Your task to perform on an android device: Go to accessibility settings Image 0: 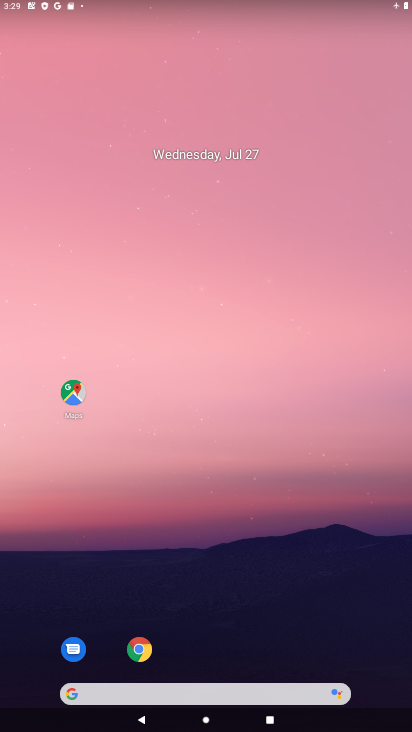
Step 0: drag from (220, 612) to (228, 570)
Your task to perform on an android device: Go to accessibility settings Image 1: 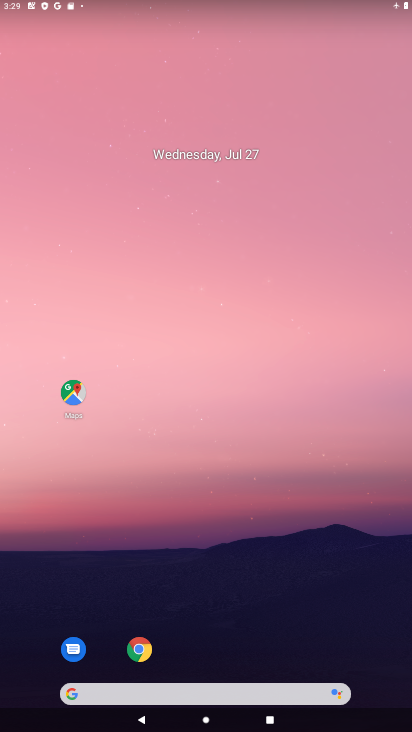
Step 1: drag from (256, 603) to (313, 270)
Your task to perform on an android device: Go to accessibility settings Image 2: 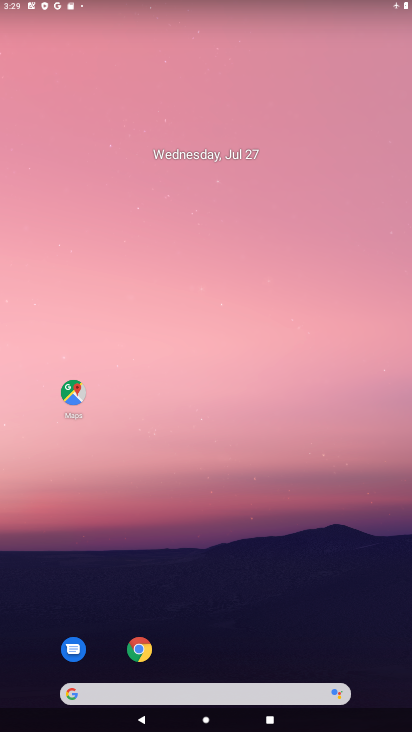
Step 2: drag from (229, 621) to (224, 63)
Your task to perform on an android device: Go to accessibility settings Image 3: 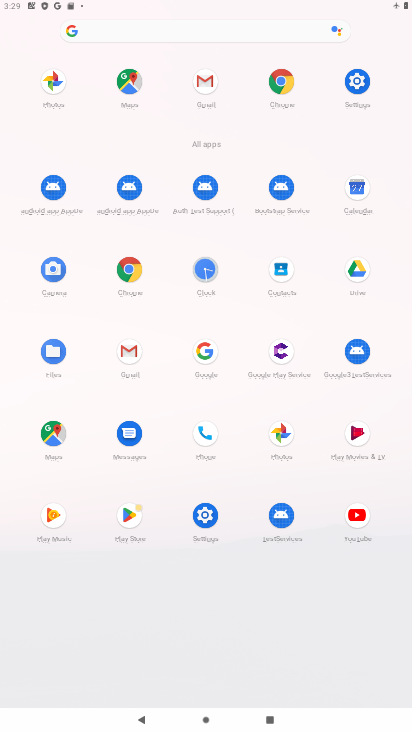
Step 3: click (206, 507)
Your task to perform on an android device: Go to accessibility settings Image 4: 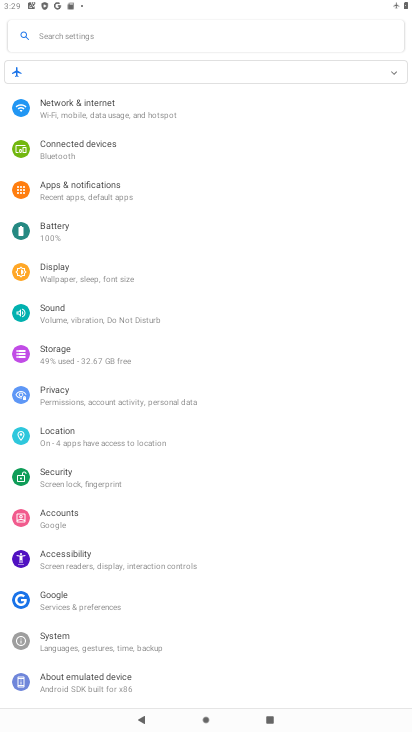
Step 4: click (106, 546)
Your task to perform on an android device: Go to accessibility settings Image 5: 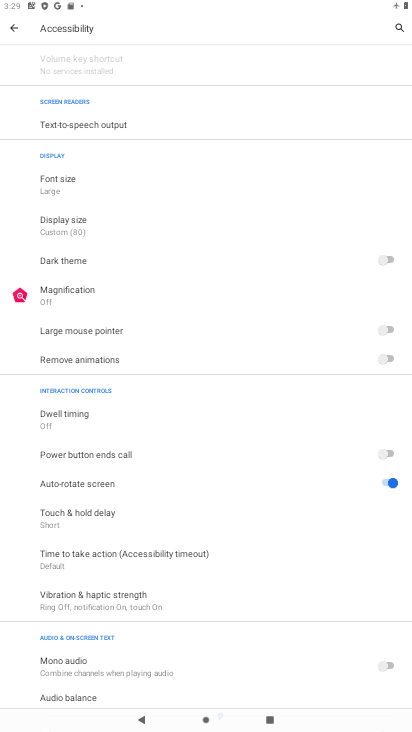
Step 5: task complete